Your task to perform on an android device: open wifi settings Image 0: 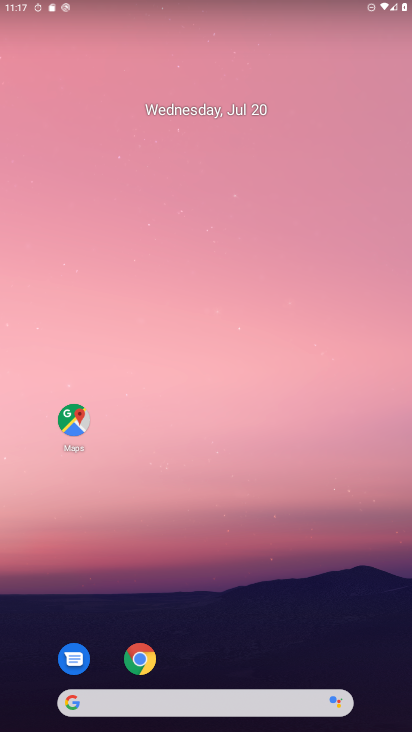
Step 0: drag from (278, 609) to (278, 124)
Your task to perform on an android device: open wifi settings Image 1: 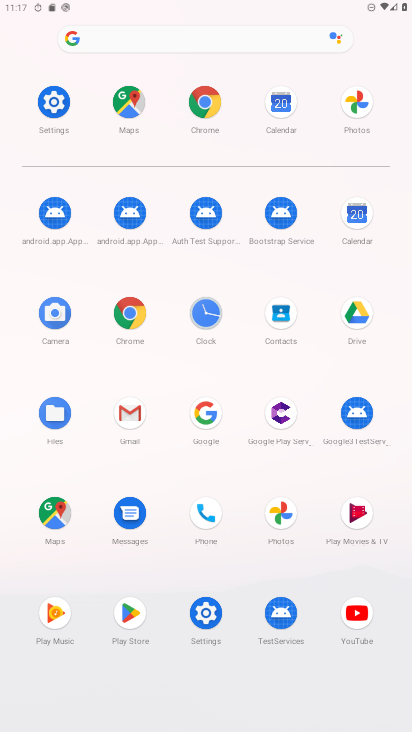
Step 1: click (66, 100)
Your task to perform on an android device: open wifi settings Image 2: 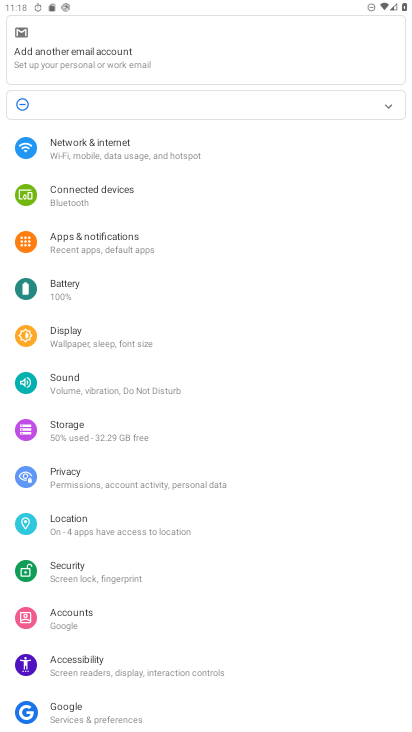
Step 2: click (110, 155)
Your task to perform on an android device: open wifi settings Image 3: 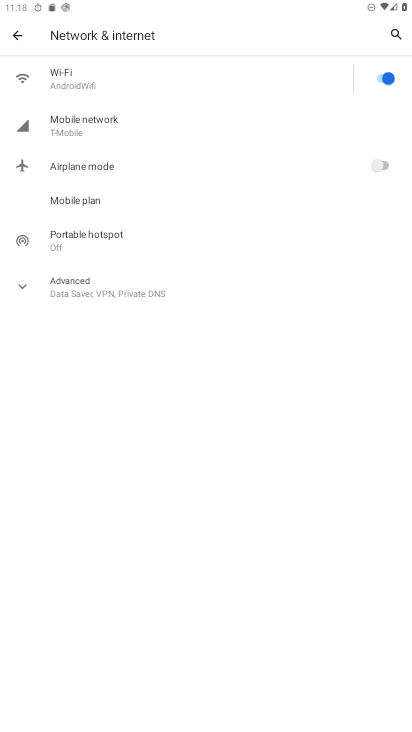
Step 3: click (282, 80)
Your task to perform on an android device: open wifi settings Image 4: 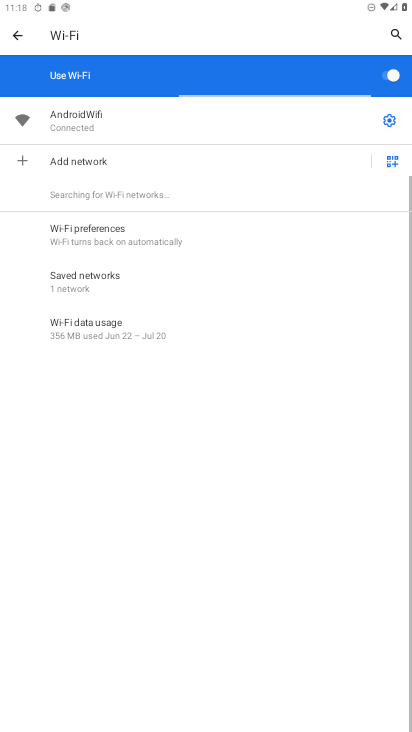
Step 4: click (397, 120)
Your task to perform on an android device: open wifi settings Image 5: 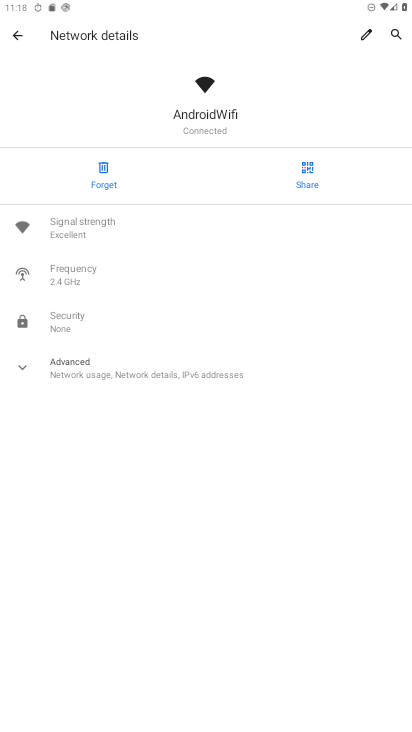
Step 5: task complete